Your task to perform on an android device: Where can I buy a nice beach chair? Image 0: 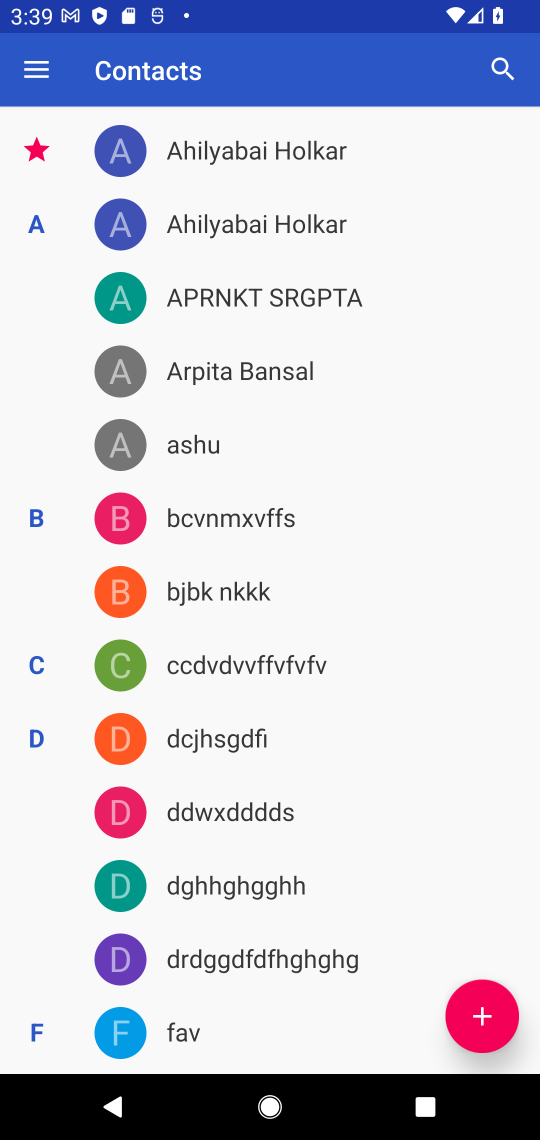
Step 0: press home button
Your task to perform on an android device: Where can I buy a nice beach chair? Image 1: 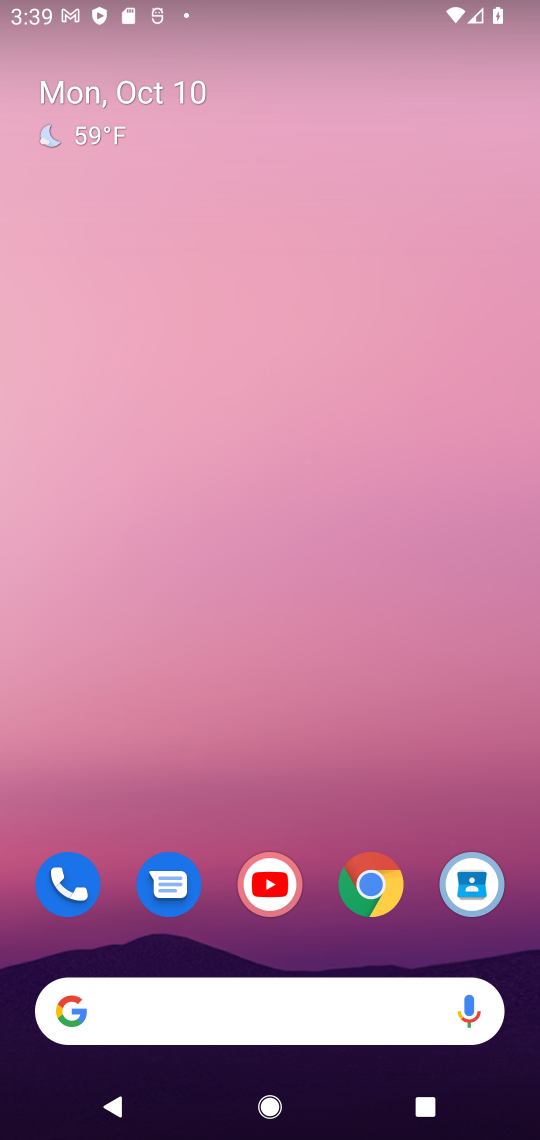
Step 1: click (362, 883)
Your task to perform on an android device: Where can I buy a nice beach chair? Image 2: 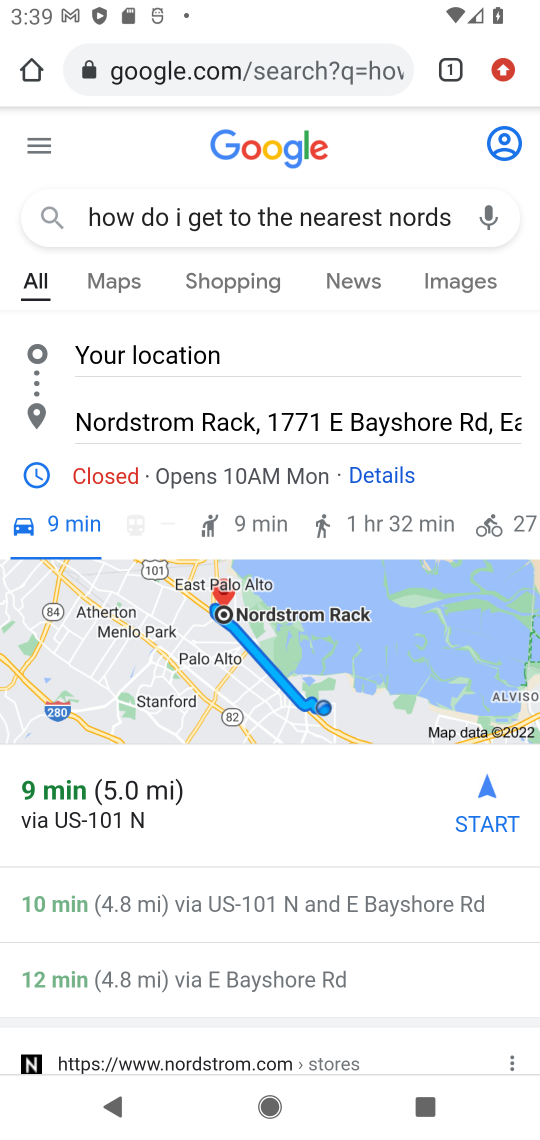
Step 2: click (264, 220)
Your task to perform on an android device: Where can I buy a nice beach chair? Image 3: 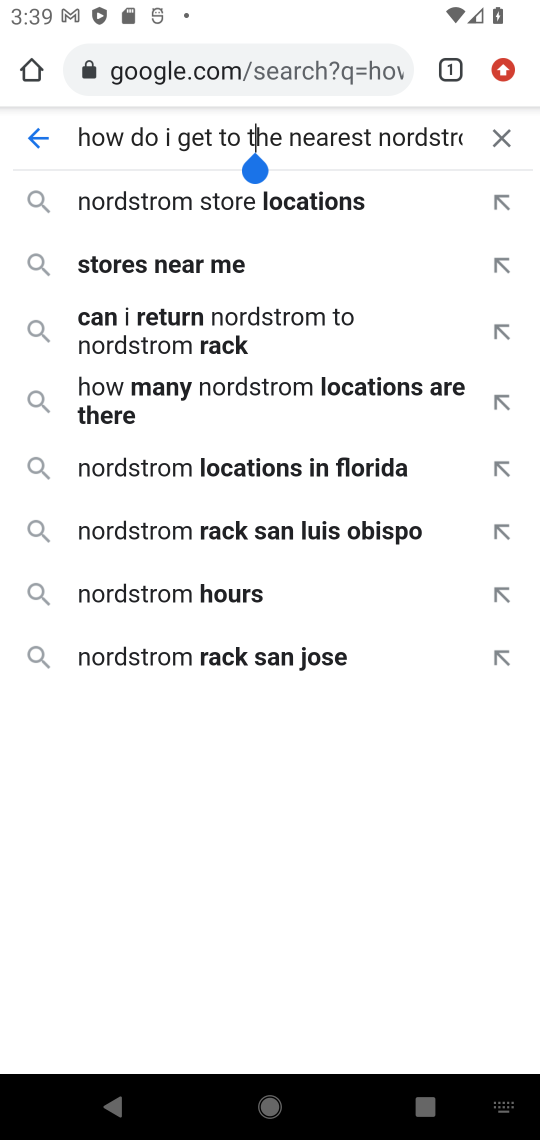
Step 3: click (493, 144)
Your task to perform on an android device: Where can I buy a nice beach chair? Image 4: 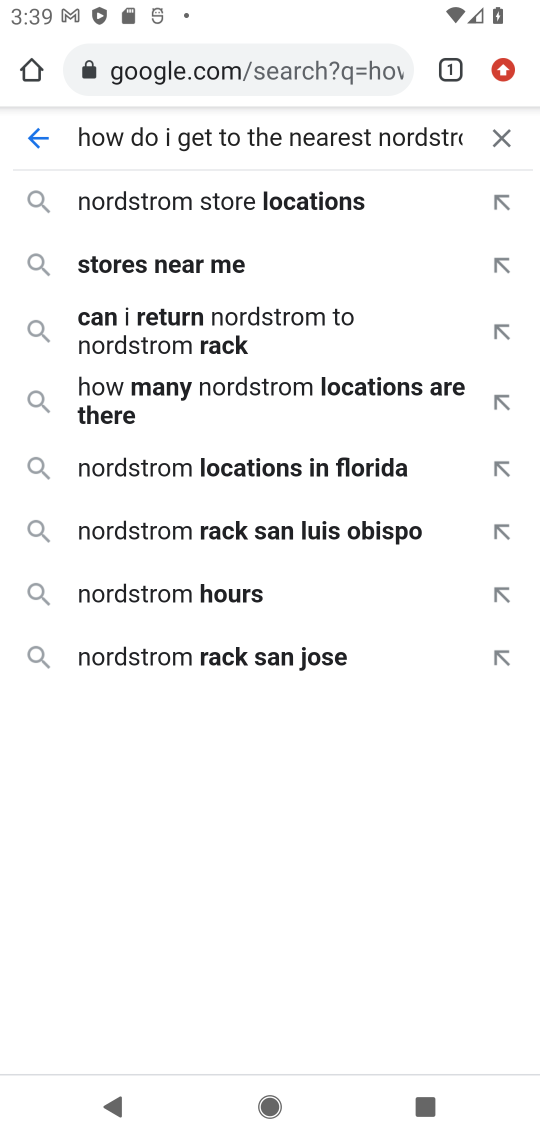
Step 4: click (500, 137)
Your task to perform on an android device: Where can I buy a nice beach chair? Image 5: 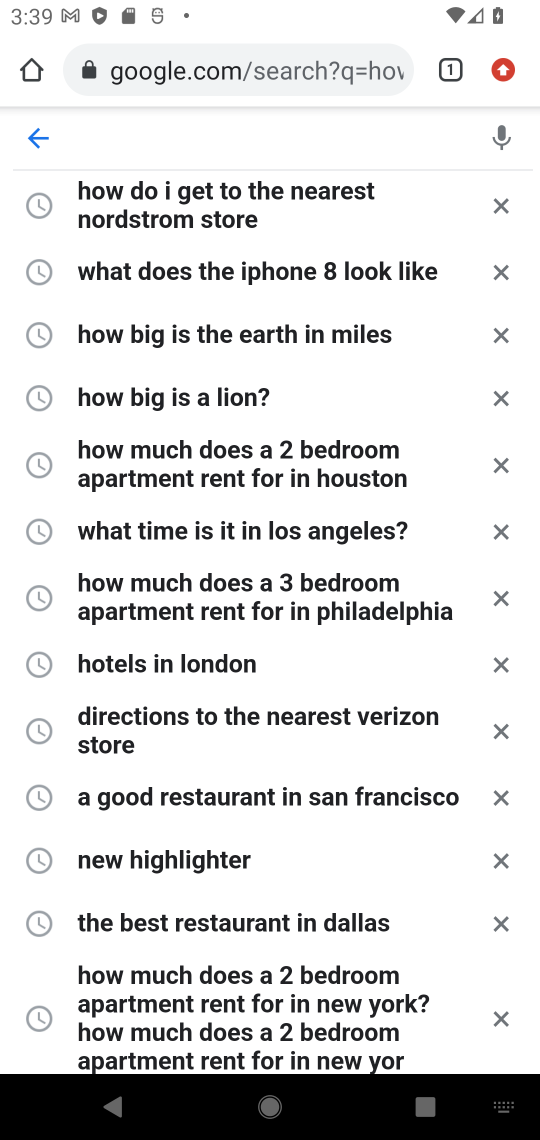
Step 5: type "Where can I buy a nice beach chair?"
Your task to perform on an android device: Where can I buy a nice beach chair? Image 6: 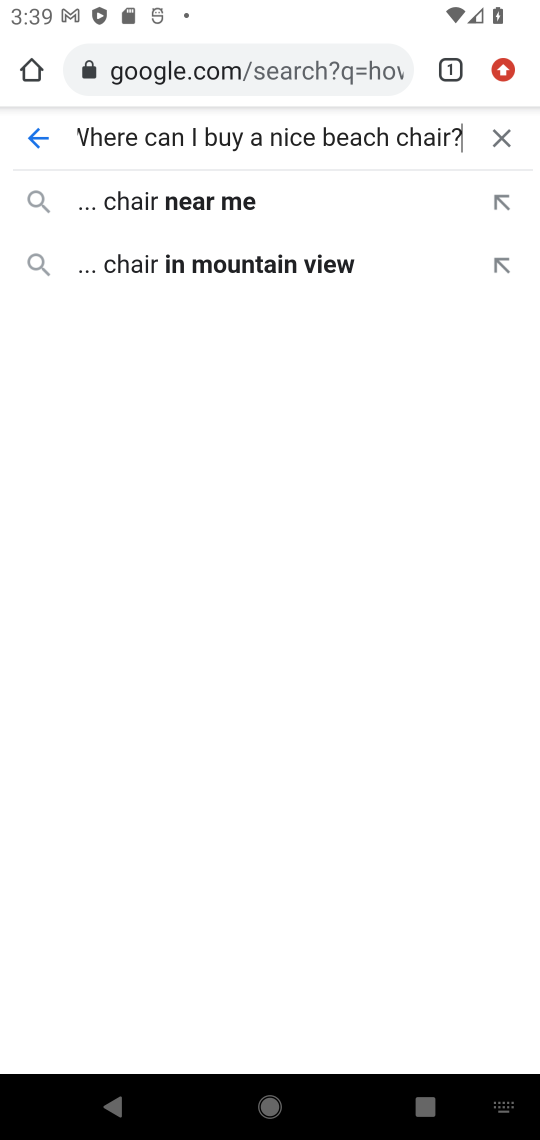
Step 6: click (192, 205)
Your task to perform on an android device: Where can I buy a nice beach chair? Image 7: 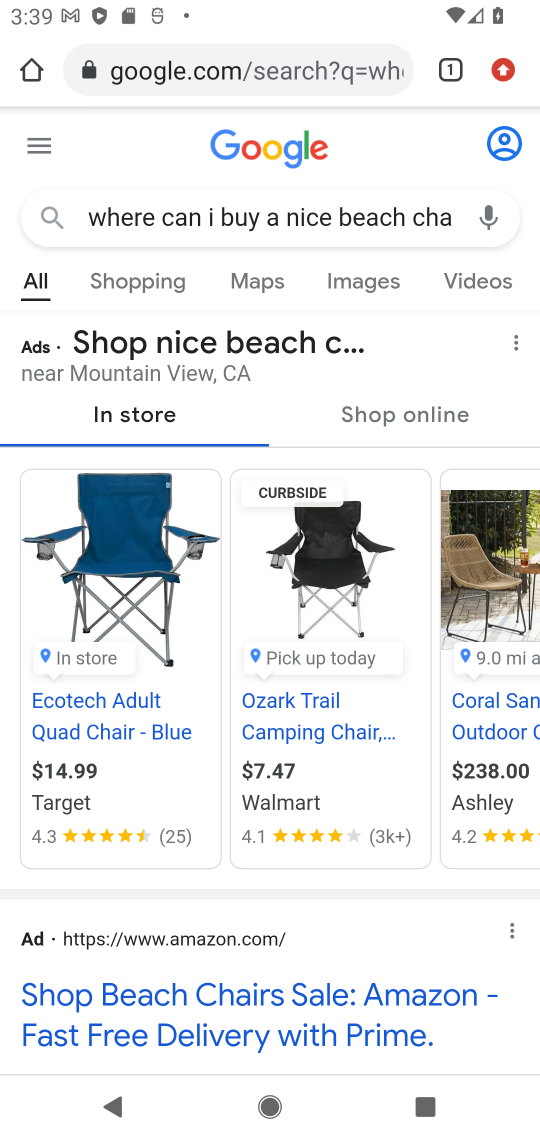
Step 7: drag from (221, 875) to (128, 466)
Your task to perform on an android device: Where can I buy a nice beach chair? Image 8: 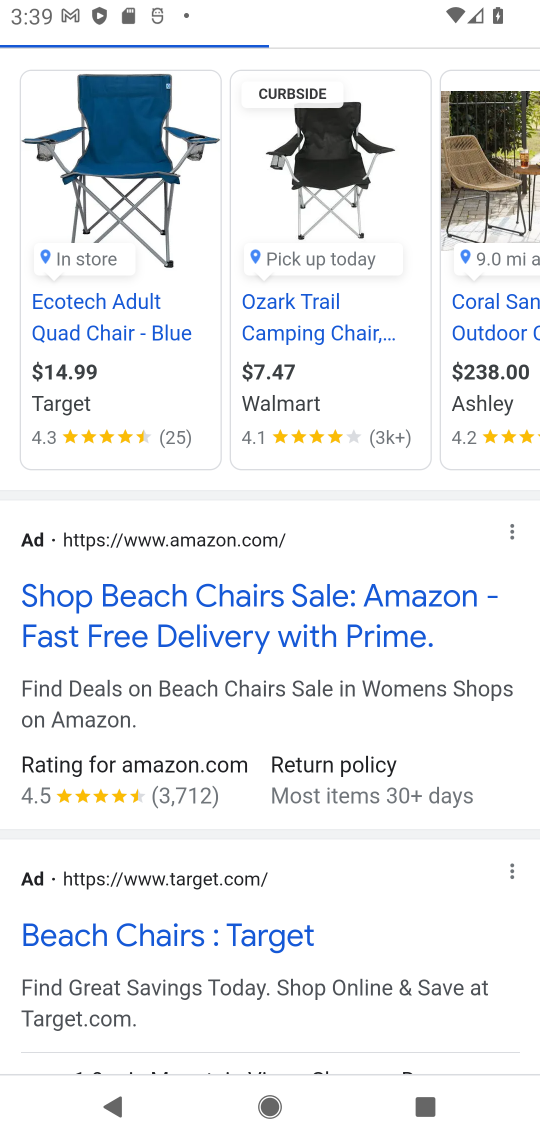
Step 8: click (100, 652)
Your task to perform on an android device: Where can I buy a nice beach chair? Image 9: 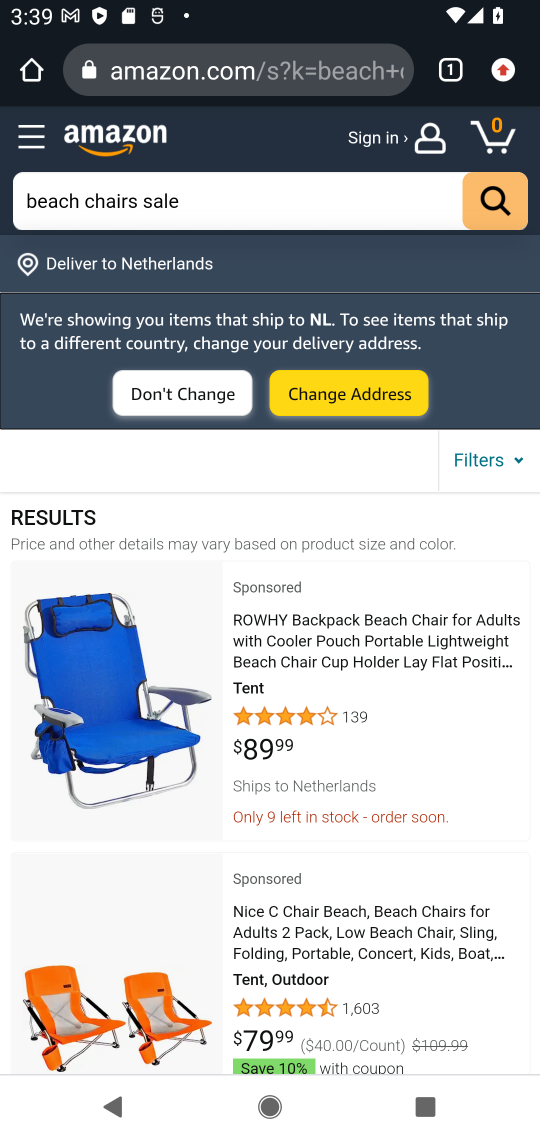
Step 9: task complete